Your task to perform on an android device: open app "Viber Messenger" (install if not already installed) and enter user name: "blameless@icloud.com" and password: "Yoknapatawpha" Image 0: 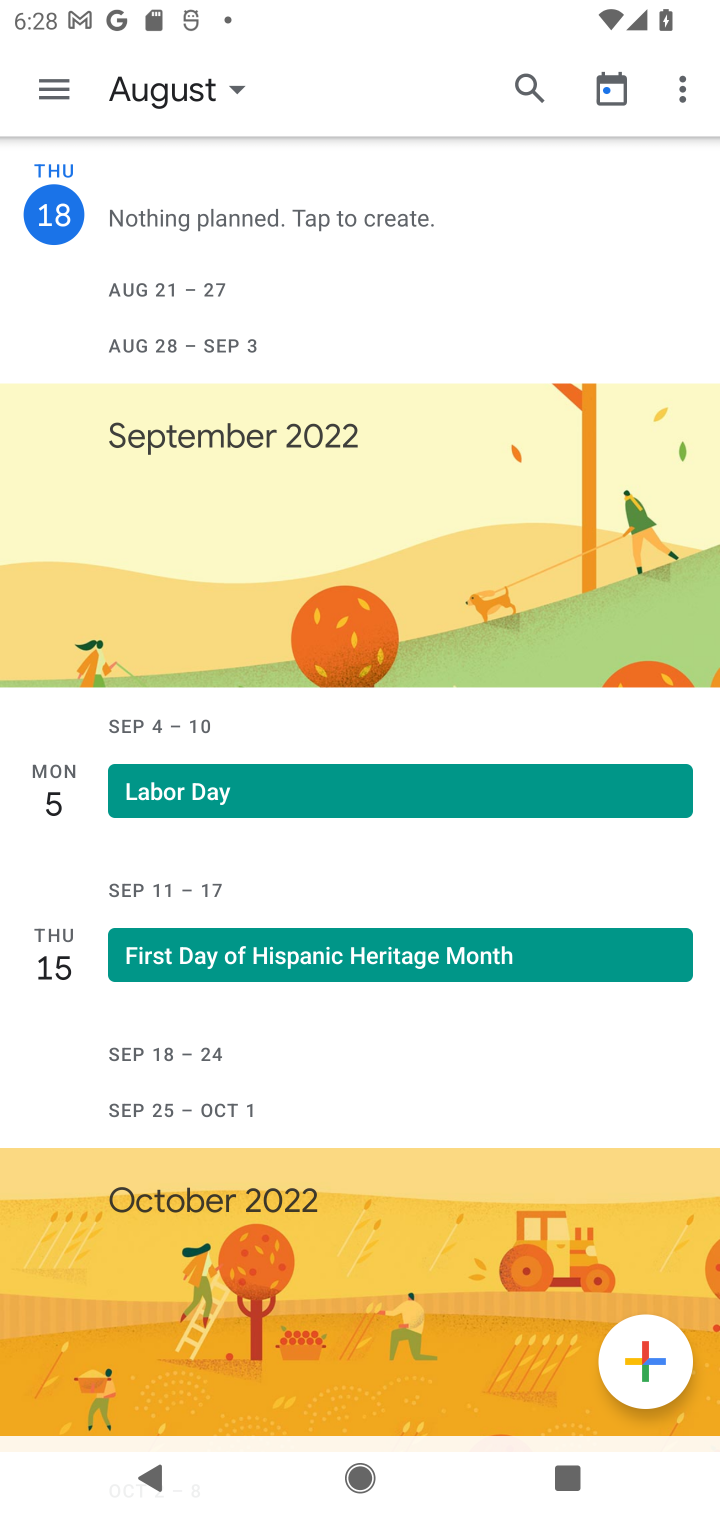
Step 0: press home button
Your task to perform on an android device: open app "Viber Messenger" (install if not already installed) and enter user name: "blameless@icloud.com" and password: "Yoknapatawpha" Image 1: 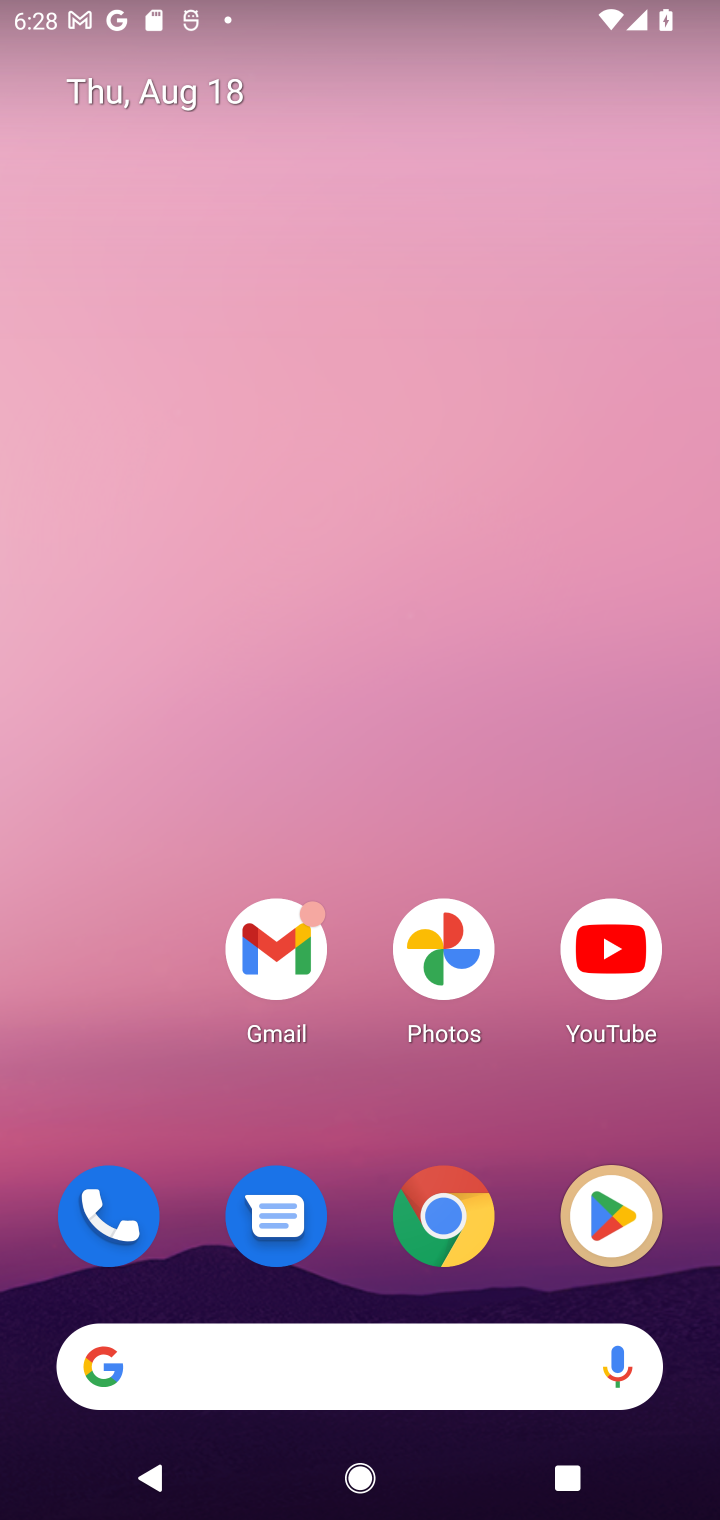
Step 1: click (611, 1208)
Your task to perform on an android device: open app "Viber Messenger" (install if not already installed) and enter user name: "blameless@icloud.com" and password: "Yoknapatawpha" Image 2: 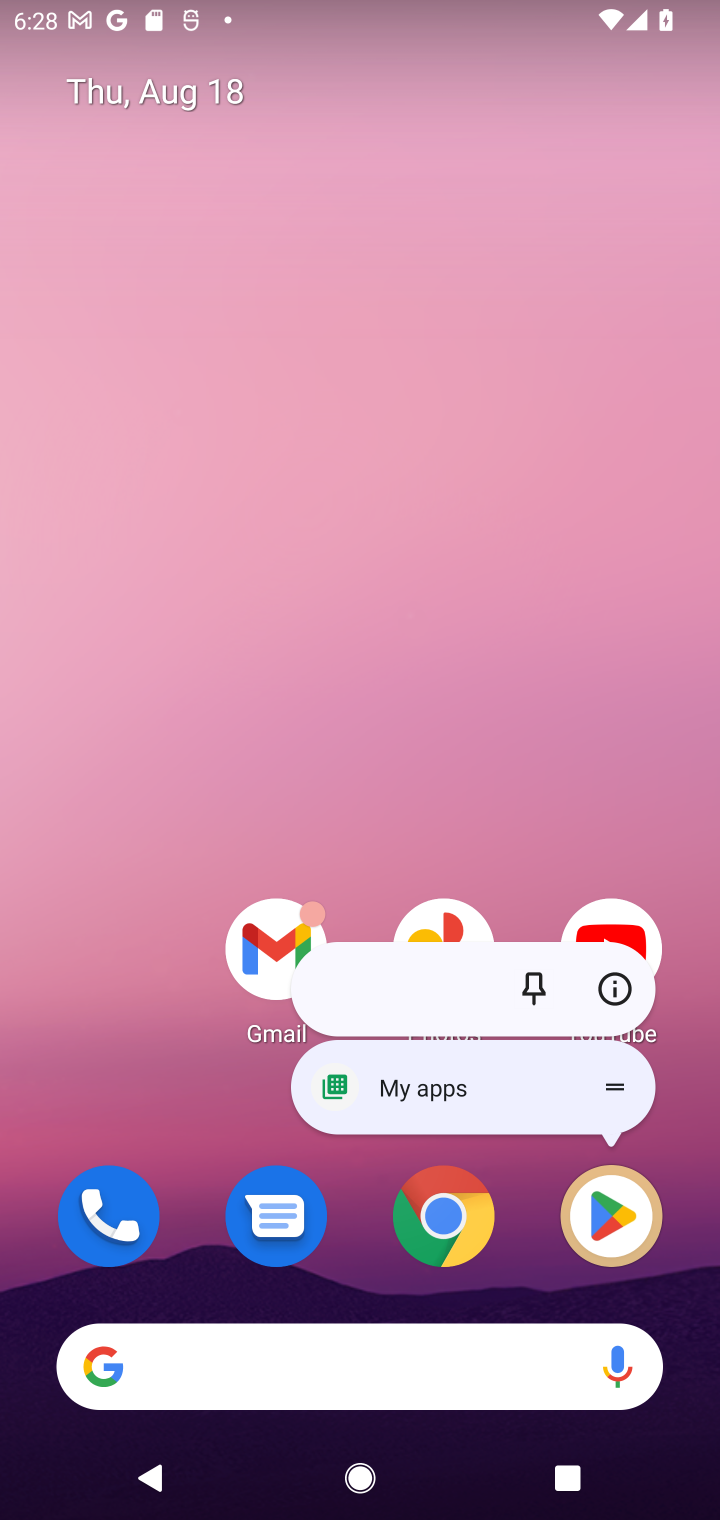
Step 2: click (612, 1215)
Your task to perform on an android device: open app "Viber Messenger" (install if not already installed) and enter user name: "blameless@icloud.com" and password: "Yoknapatawpha" Image 3: 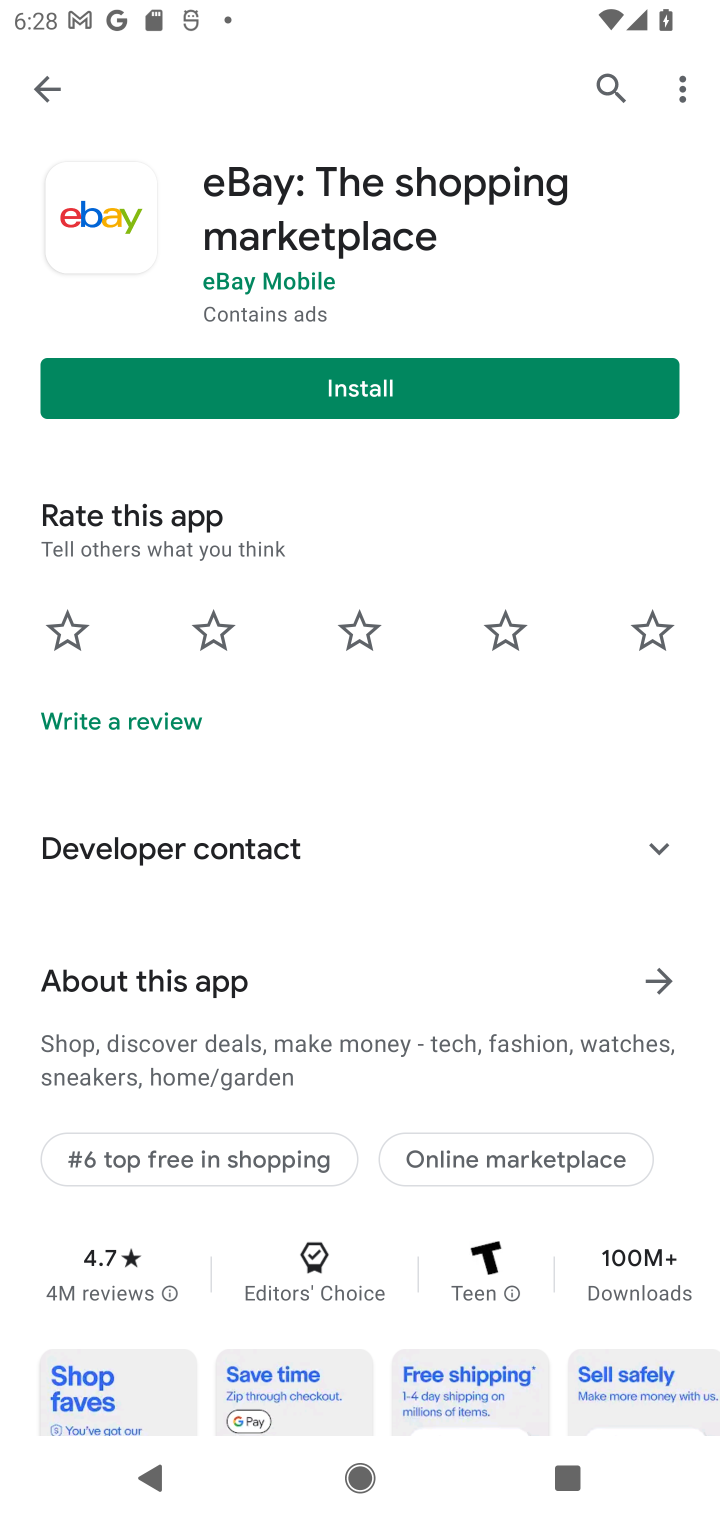
Step 3: click (607, 89)
Your task to perform on an android device: open app "Viber Messenger" (install if not already installed) and enter user name: "blameless@icloud.com" and password: "Yoknapatawpha" Image 4: 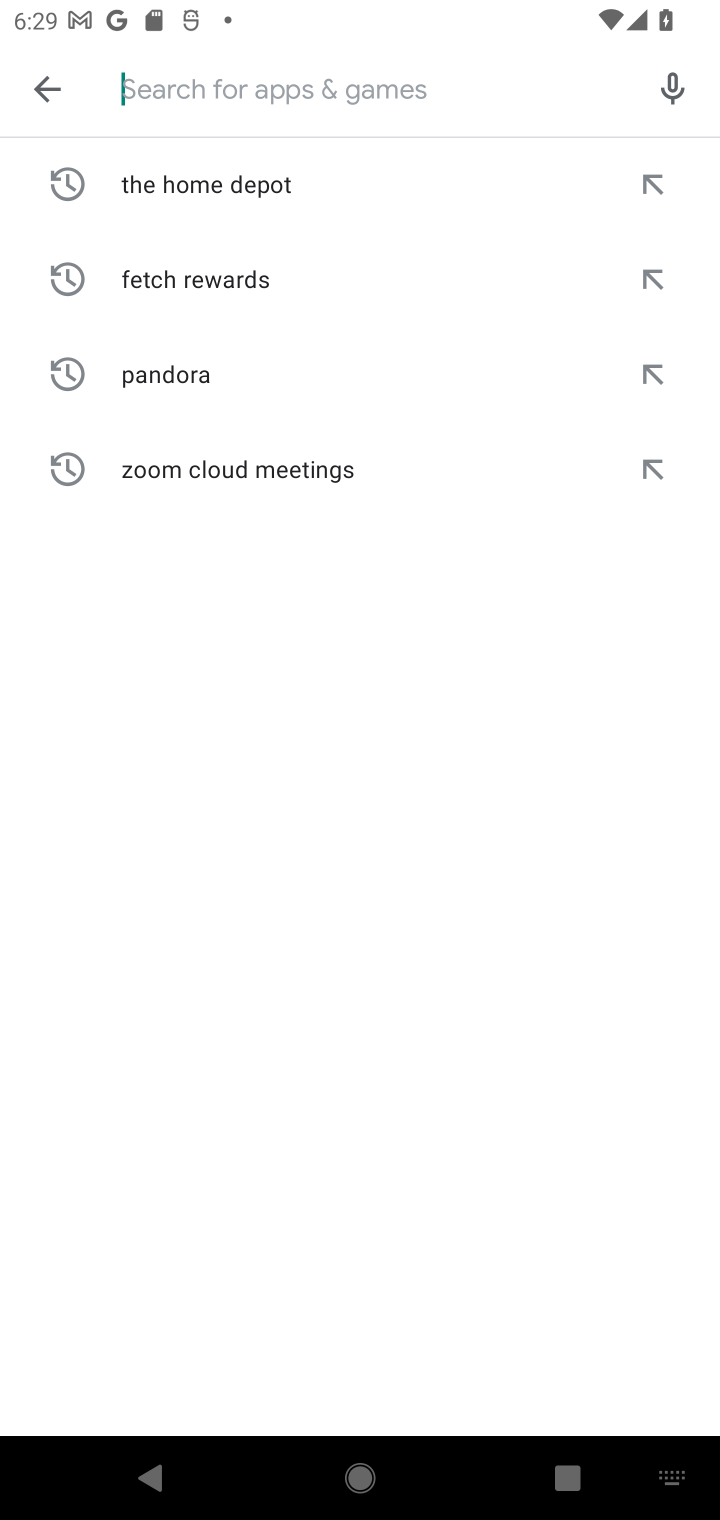
Step 4: type "Viber Messenger"
Your task to perform on an android device: open app "Viber Messenger" (install if not already installed) and enter user name: "blameless@icloud.com" and password: "Yoknapatawpha" Image 5: 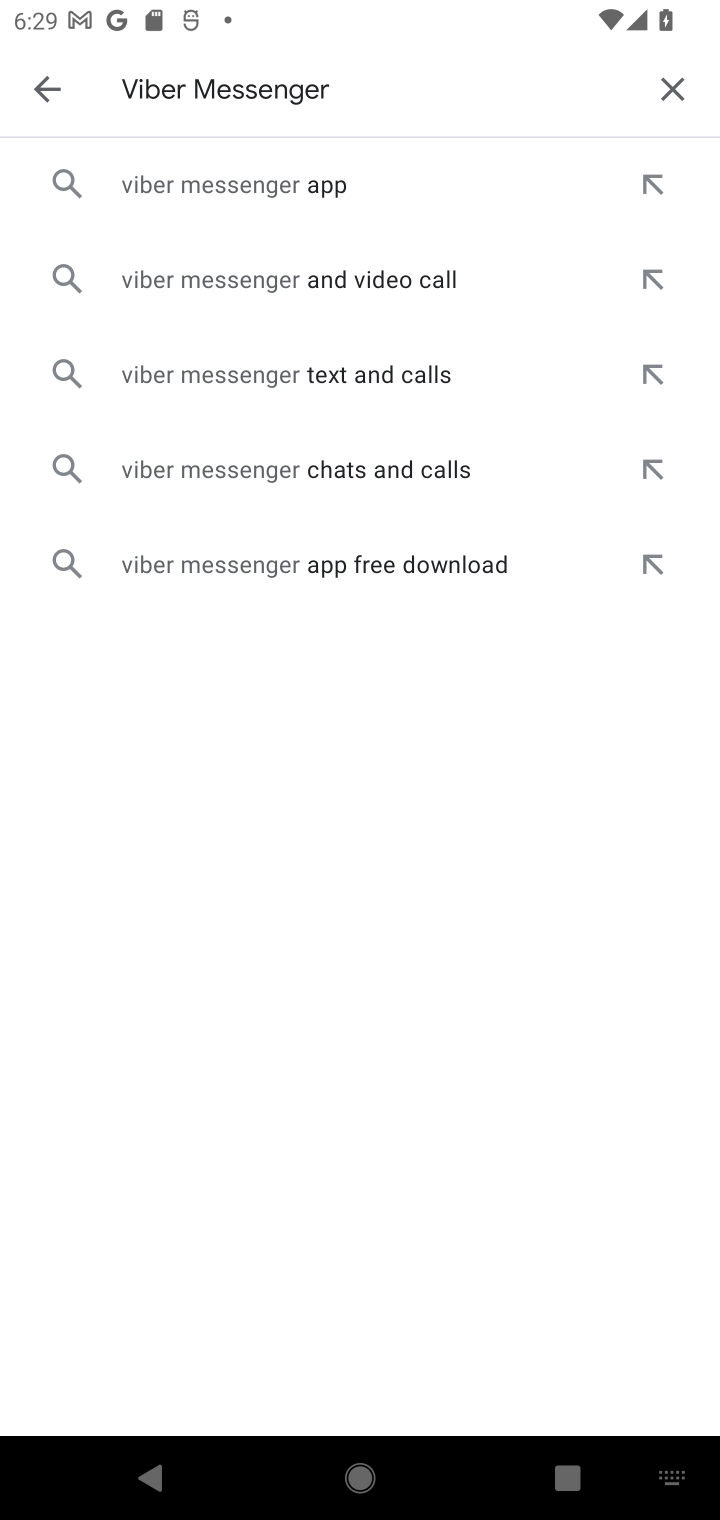
Step 5: click (202, 190)
Your task to perform on an android device: open app "Viber Messenger" (install if not already installed) and enter user name: "blameless@icloud.com" and password: "Yoknapatawpha" Image 6: 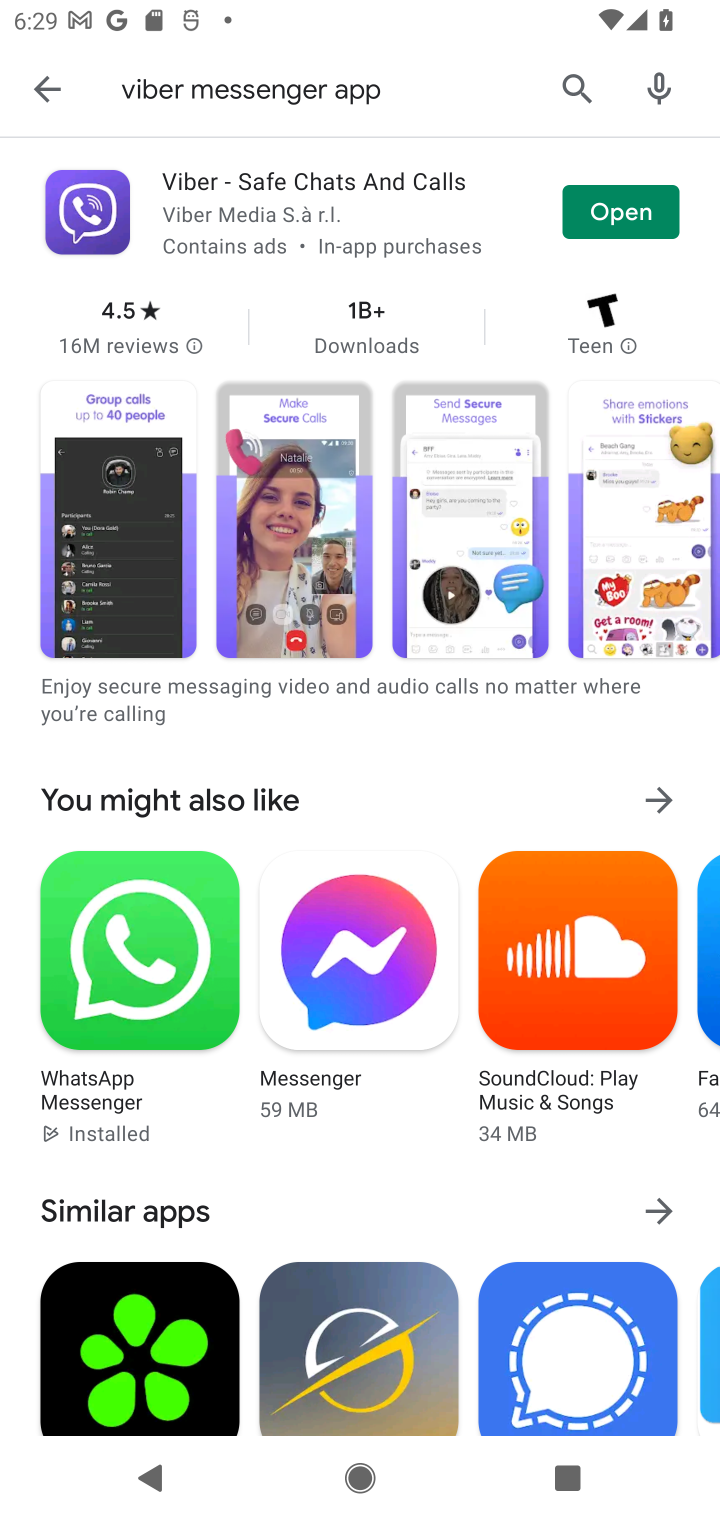
Step 6: click (612, 214)
Your task to perform on an android device: open app "Viber Messenger" (install if not already installed) and enter user name: "blameless@icloud.com" and password: "Yoknapatawpha" Image 7: 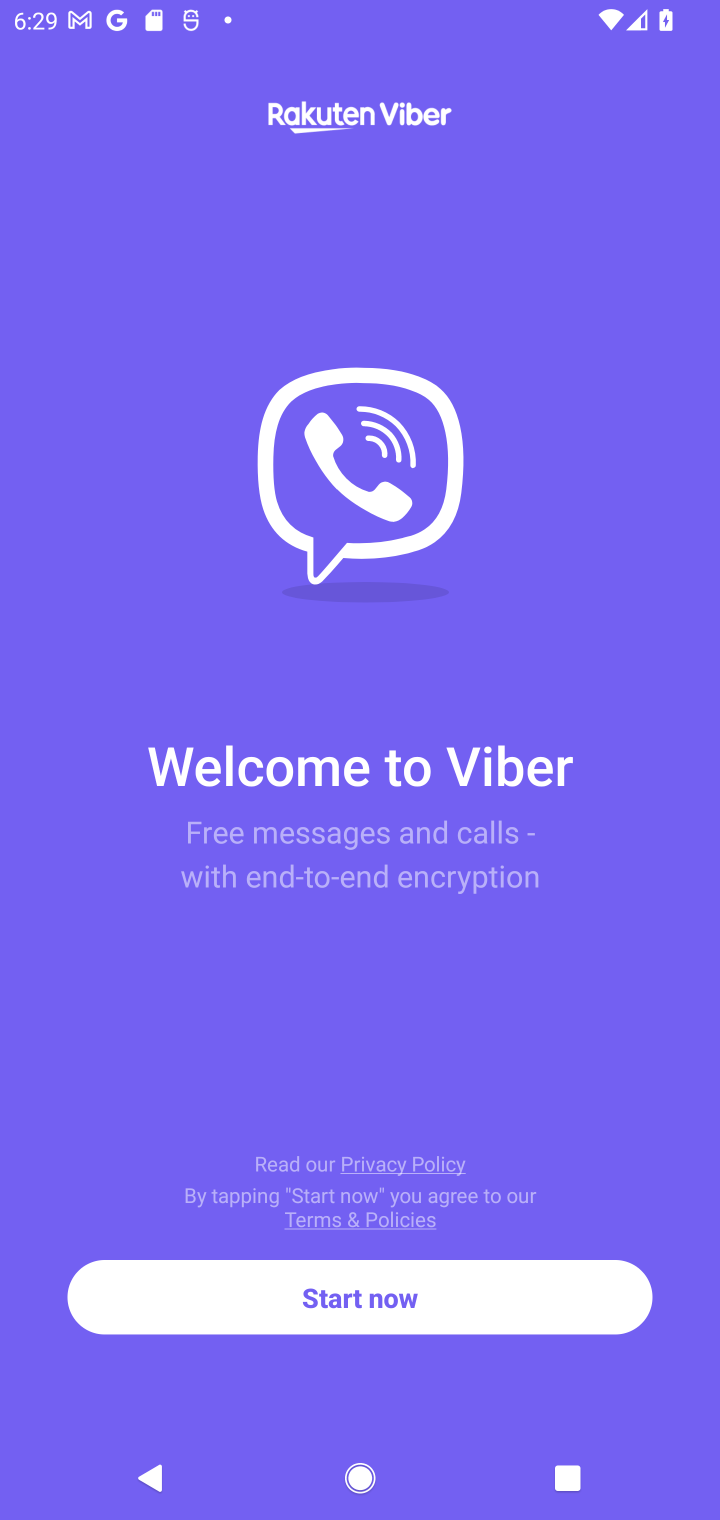
Step 7: click (359, 1300)
Your task to perform on an android device: open app "Viber Messenger" (install if not already installed) and enter user name: "blameless@icloud.com" and password: "Yoknapatawpha" Image 8: 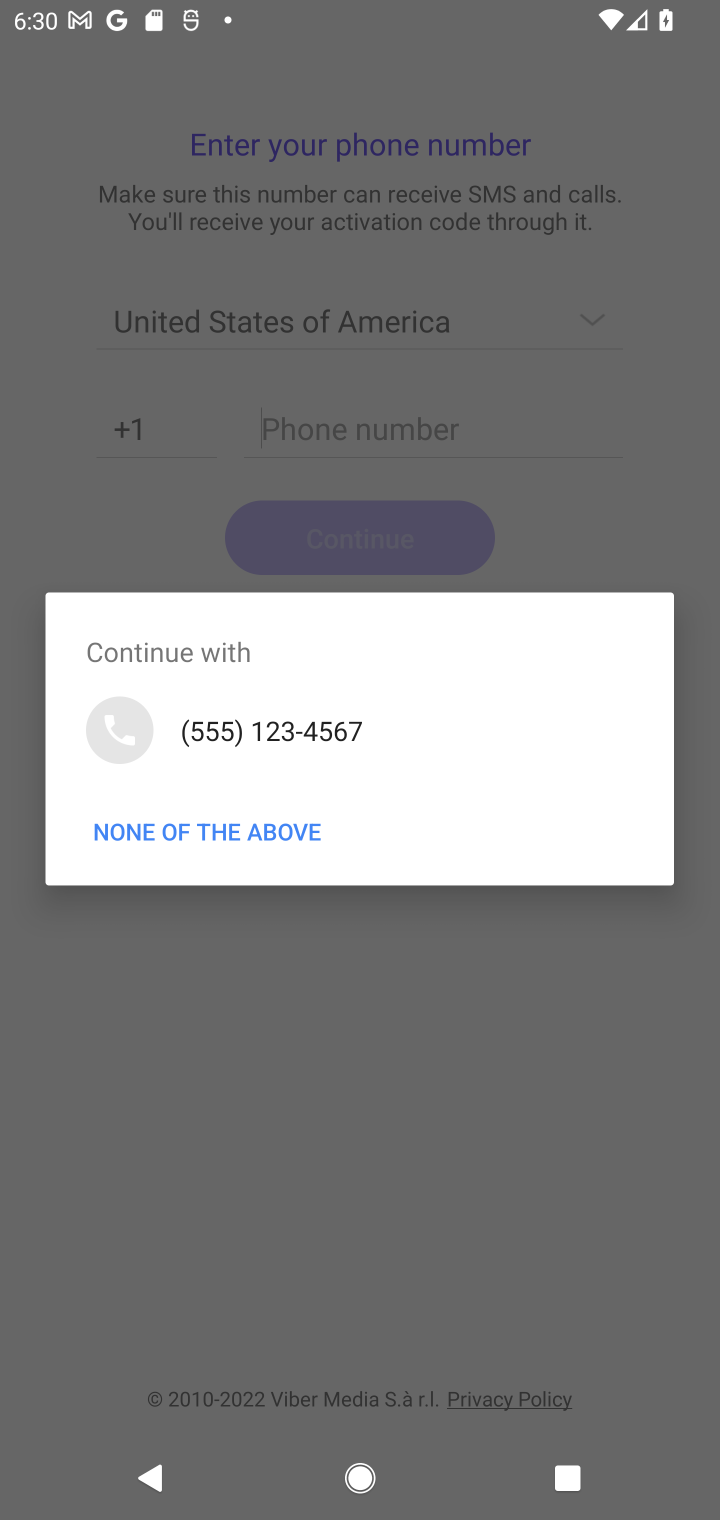
Step 8: task complete